Your task to perform on an android device: turn off picture-in-picture Image 0: 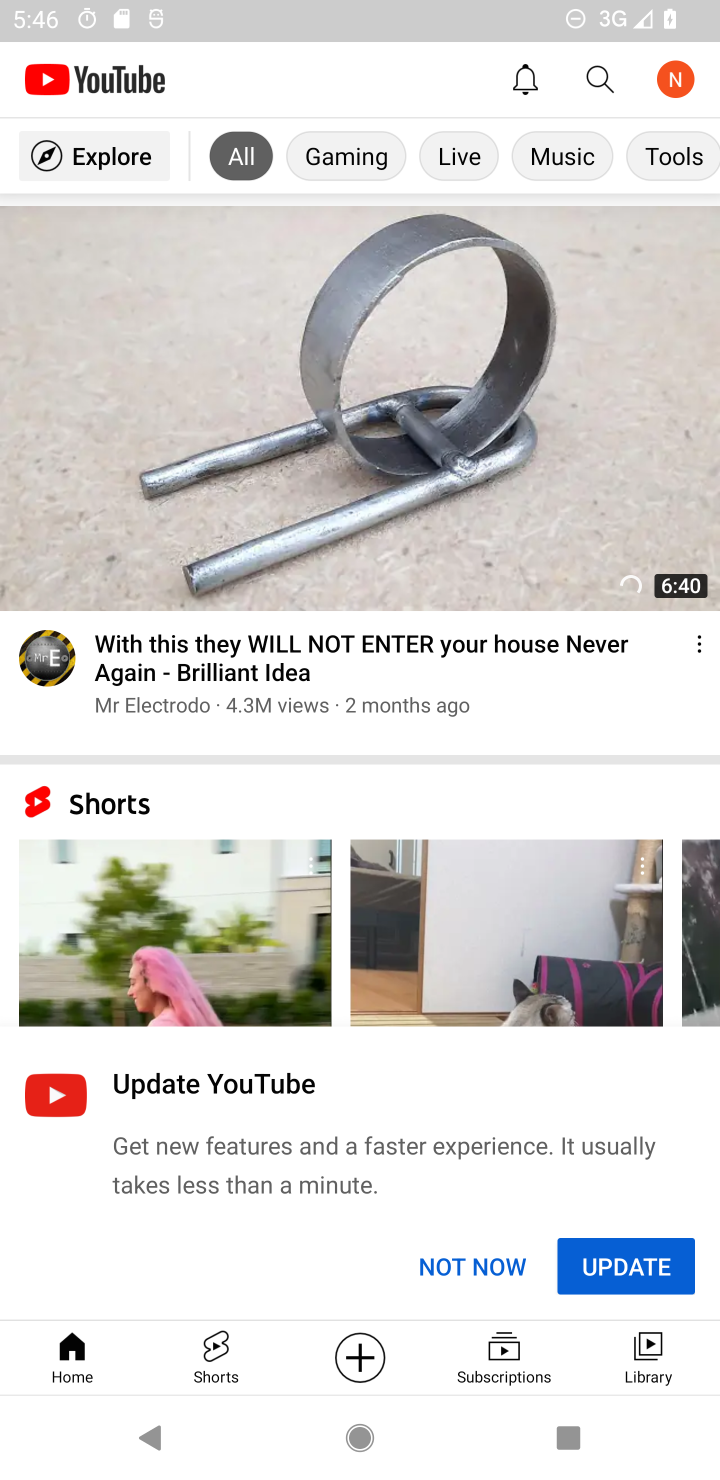
Step 0: drag from (473, 832) to (613, 153)
Your task to perform on an android device: turn off picture-in-picture Image 1: 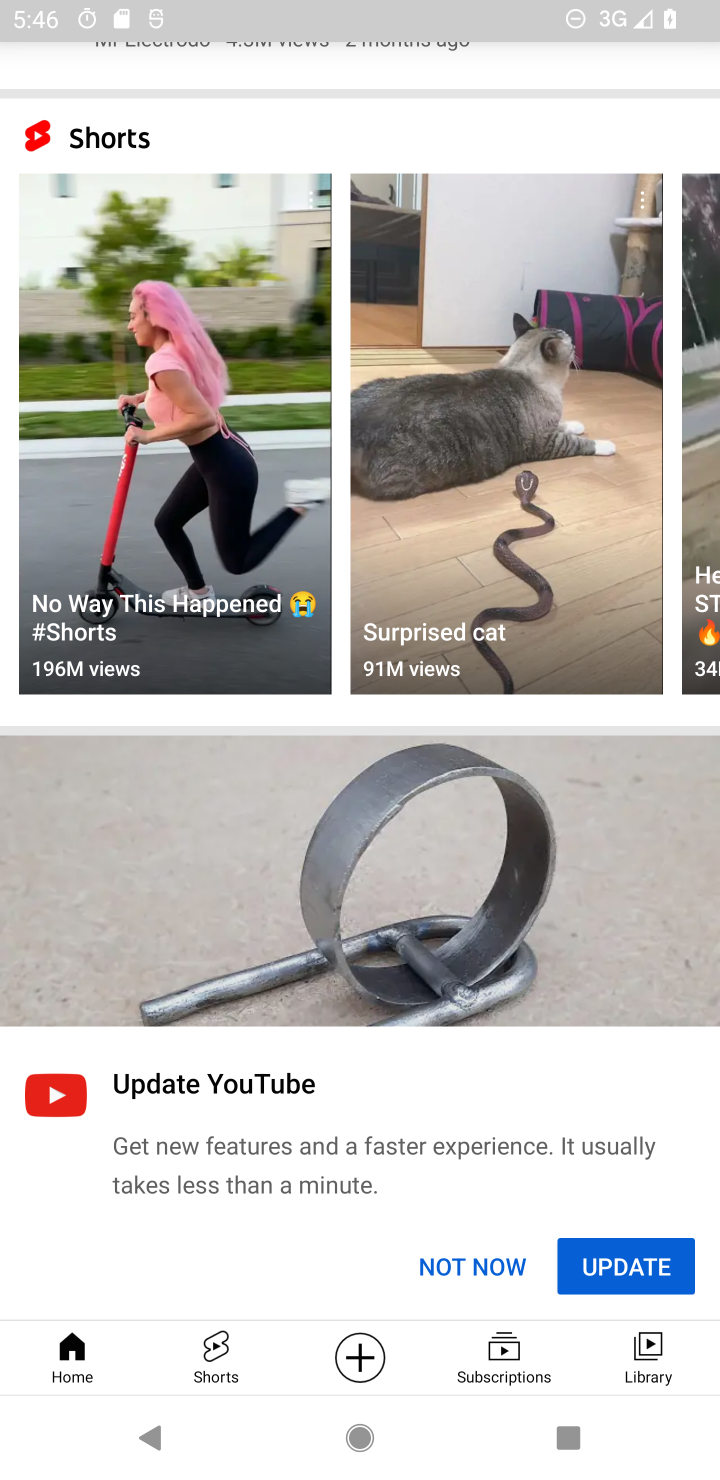
Step 1: drag from (462, 752) to (492, 397)
Your task to perform on an android device: turn off picture-in-picture Image 2: 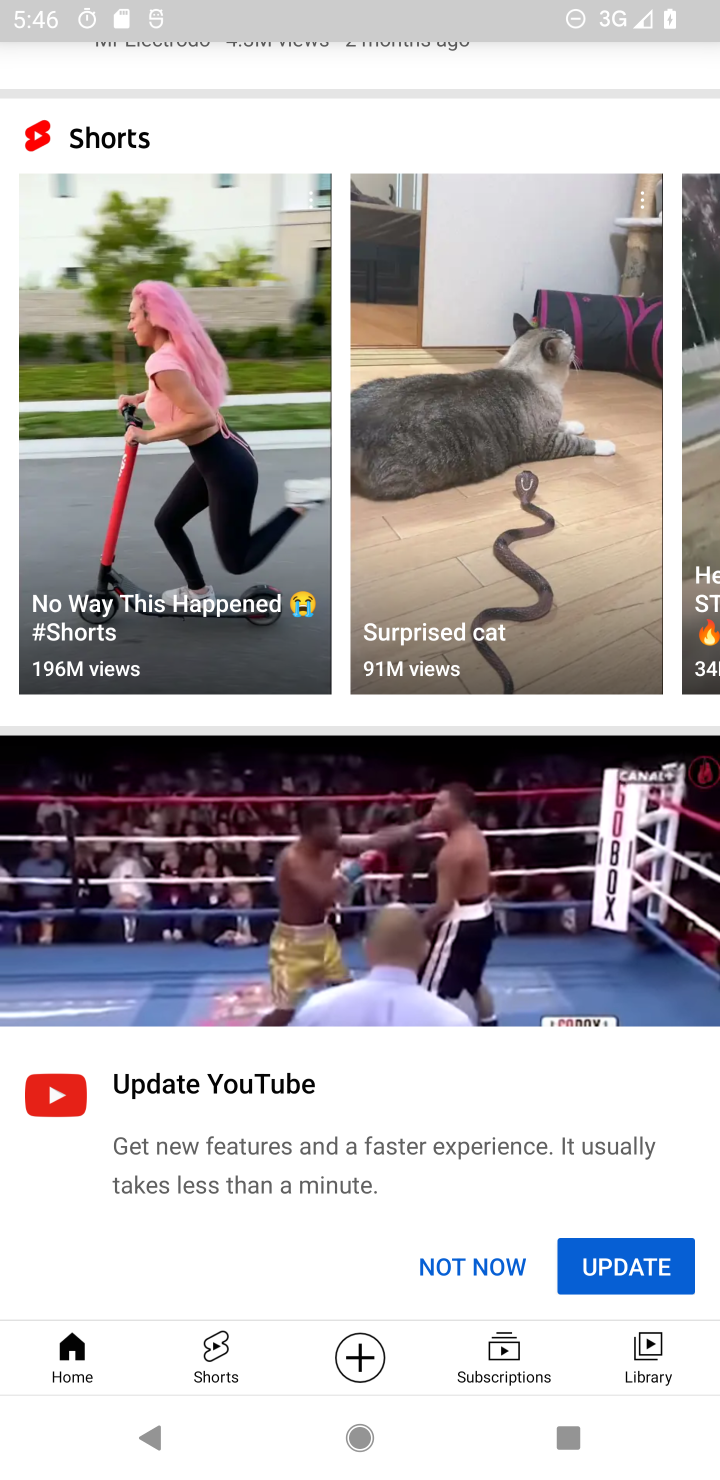
Step 2: drag from (577, 619) to (624, 180)
Your task to perform on an android device: turn off picture-in-picture Image 3: 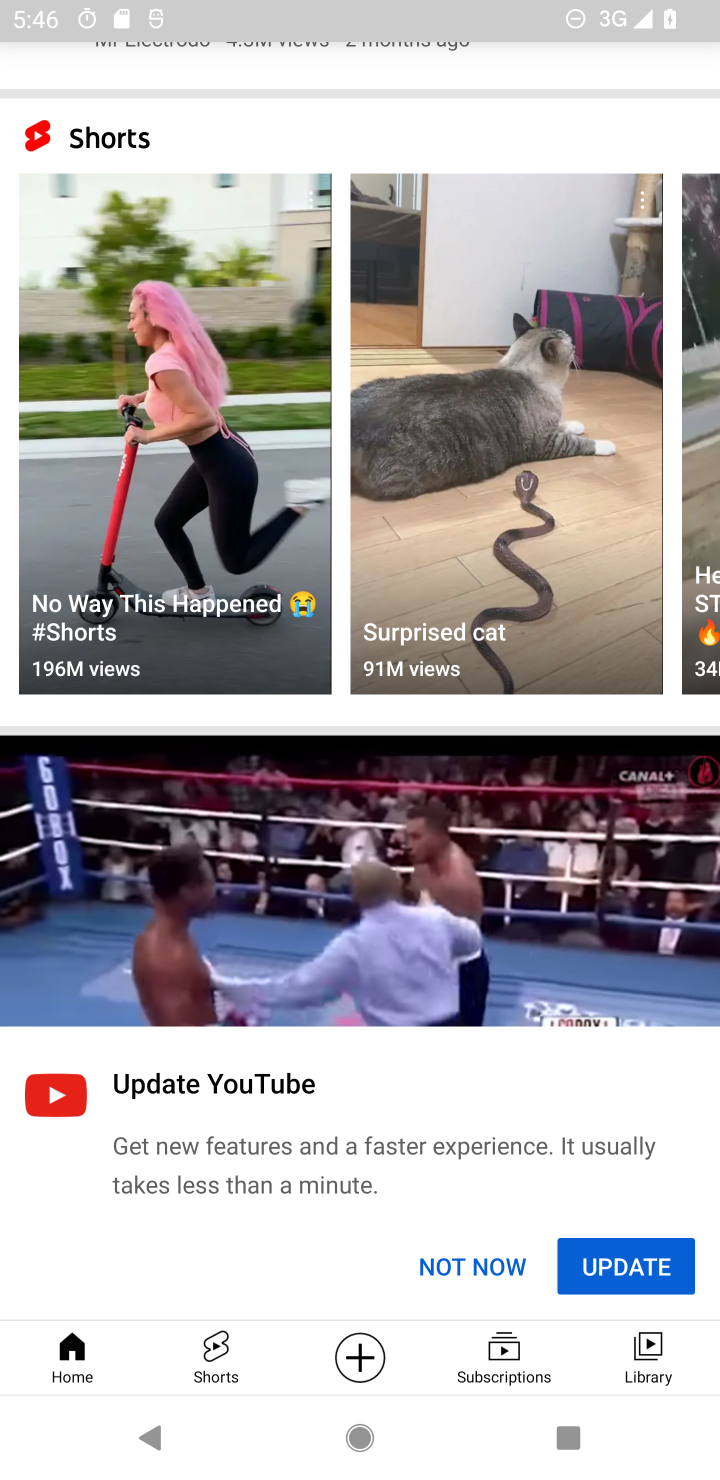
Step 3: drag from (349, 658) to (406, 314)
Your task to perform on an android device: turn off picture-in-picture Image 4: 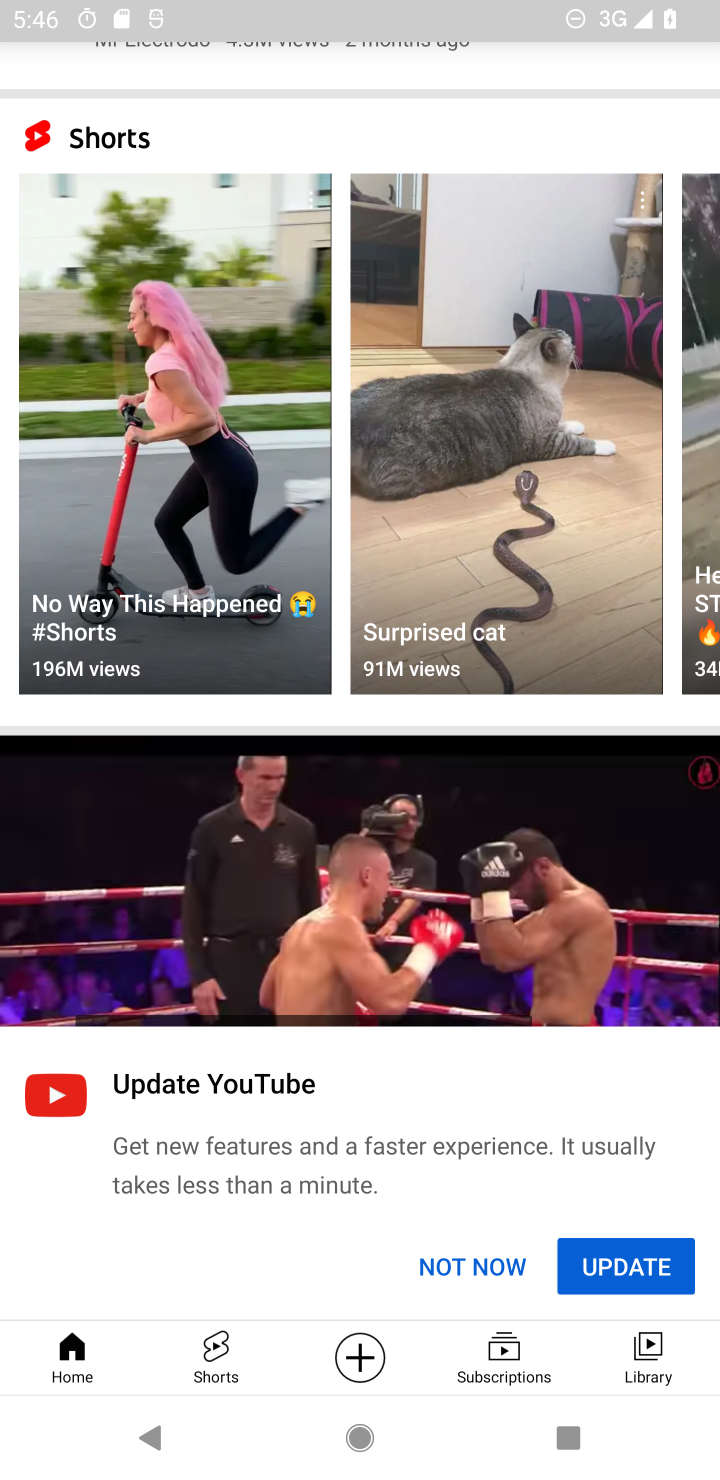
Step 4: drag from (350, 731) to (476, 179)
Your task to perform on an android device: turn off picture-in-picture Image 5: 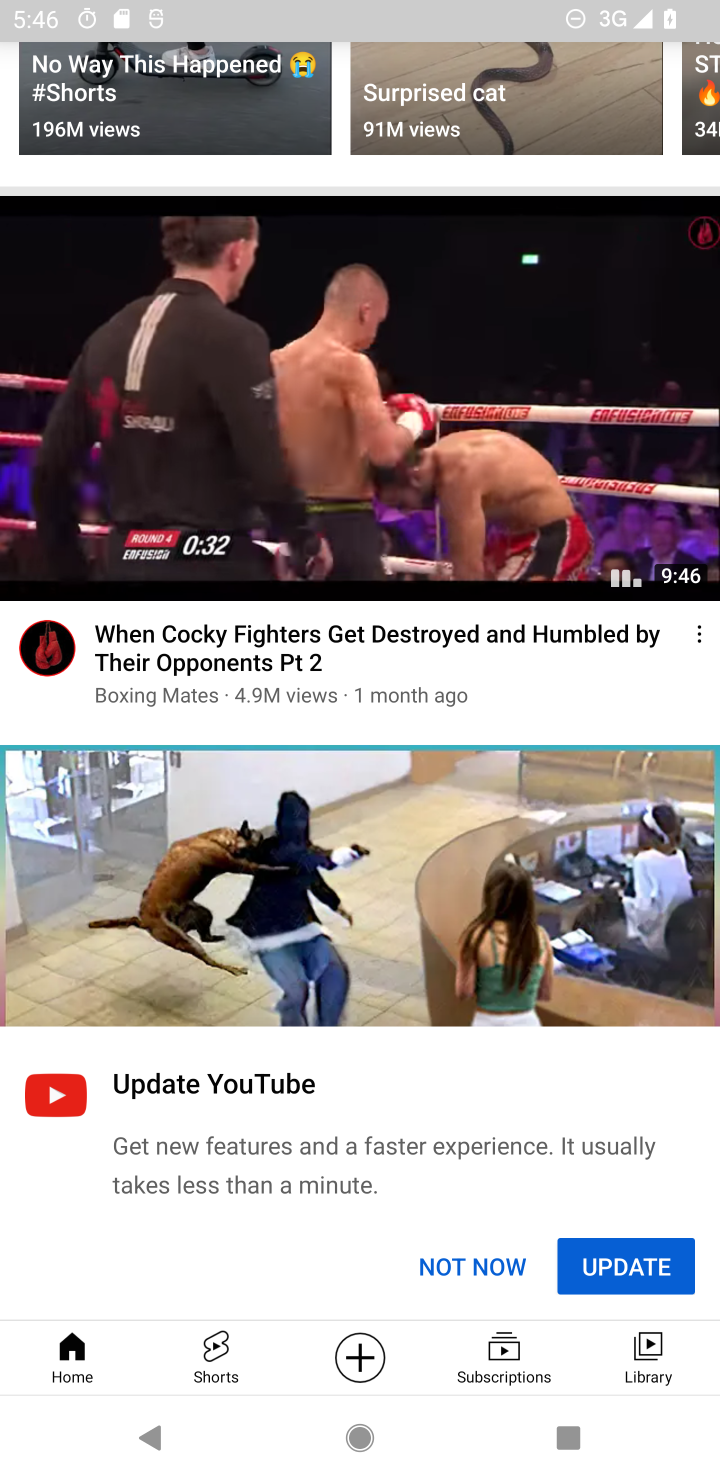
Step 5: click (465, 1258)
Your task to perform on an android device: turn off picture-in-picture Image 6: 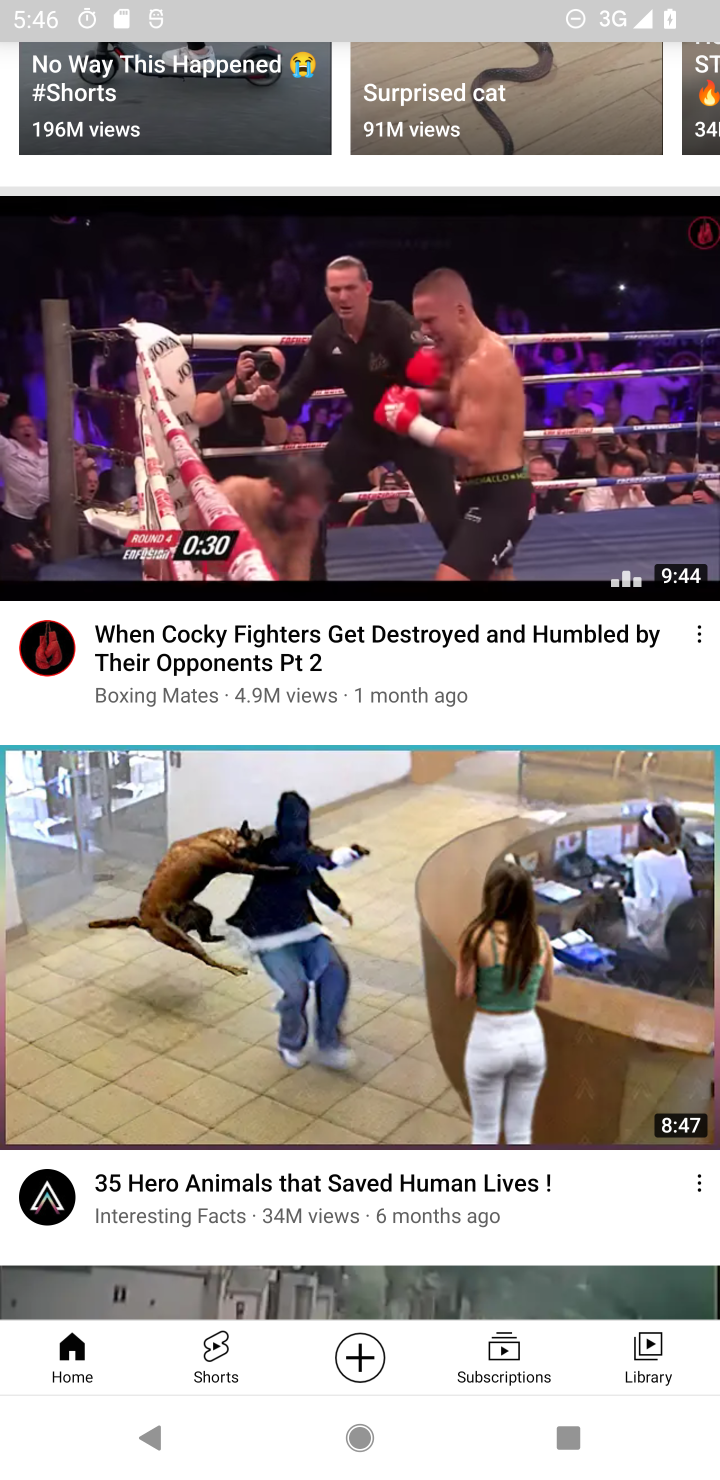
Step 6: drag from (492, 717) to (598, 1454)
Your task to perform on an android device: turn off picture-in-picture Image 7: 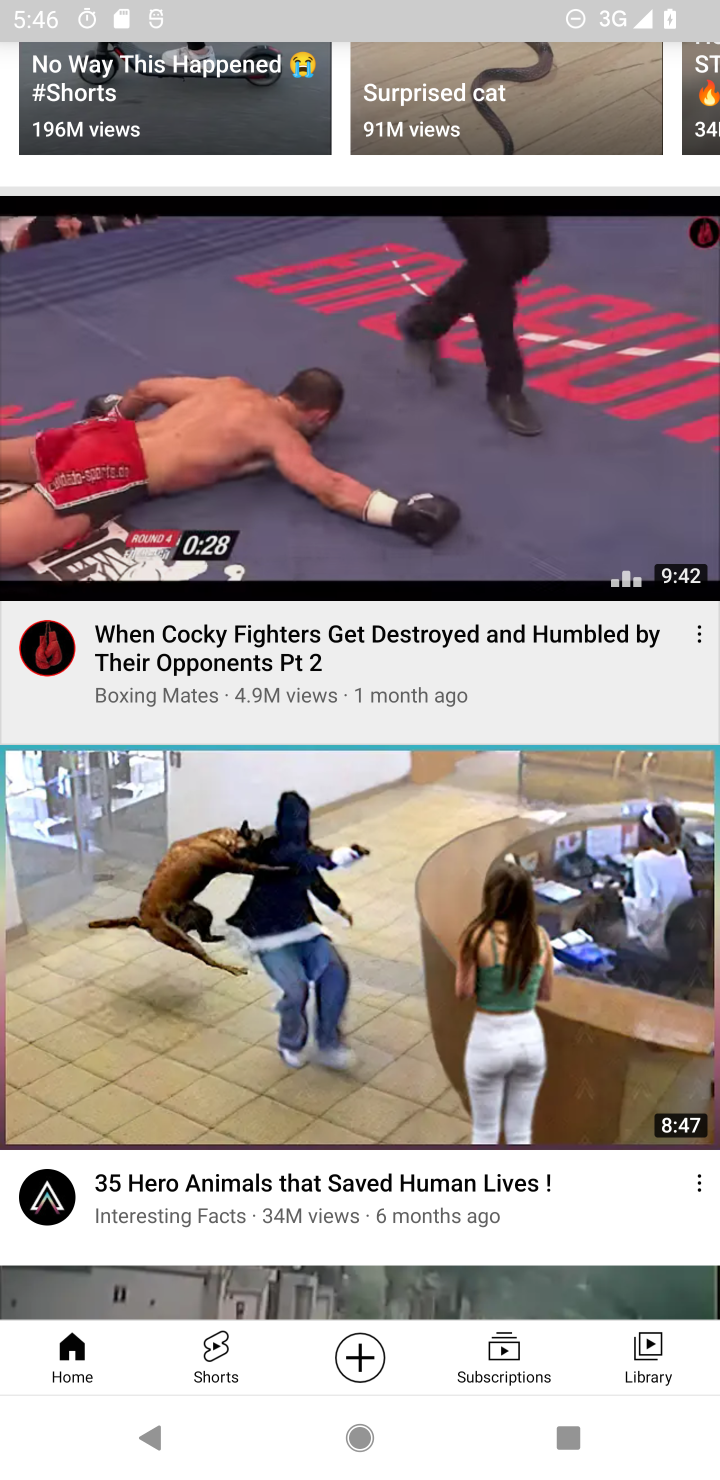
Step 7: press home button
Your task to perform on an android device: turn off picture-in-picture Image 8: 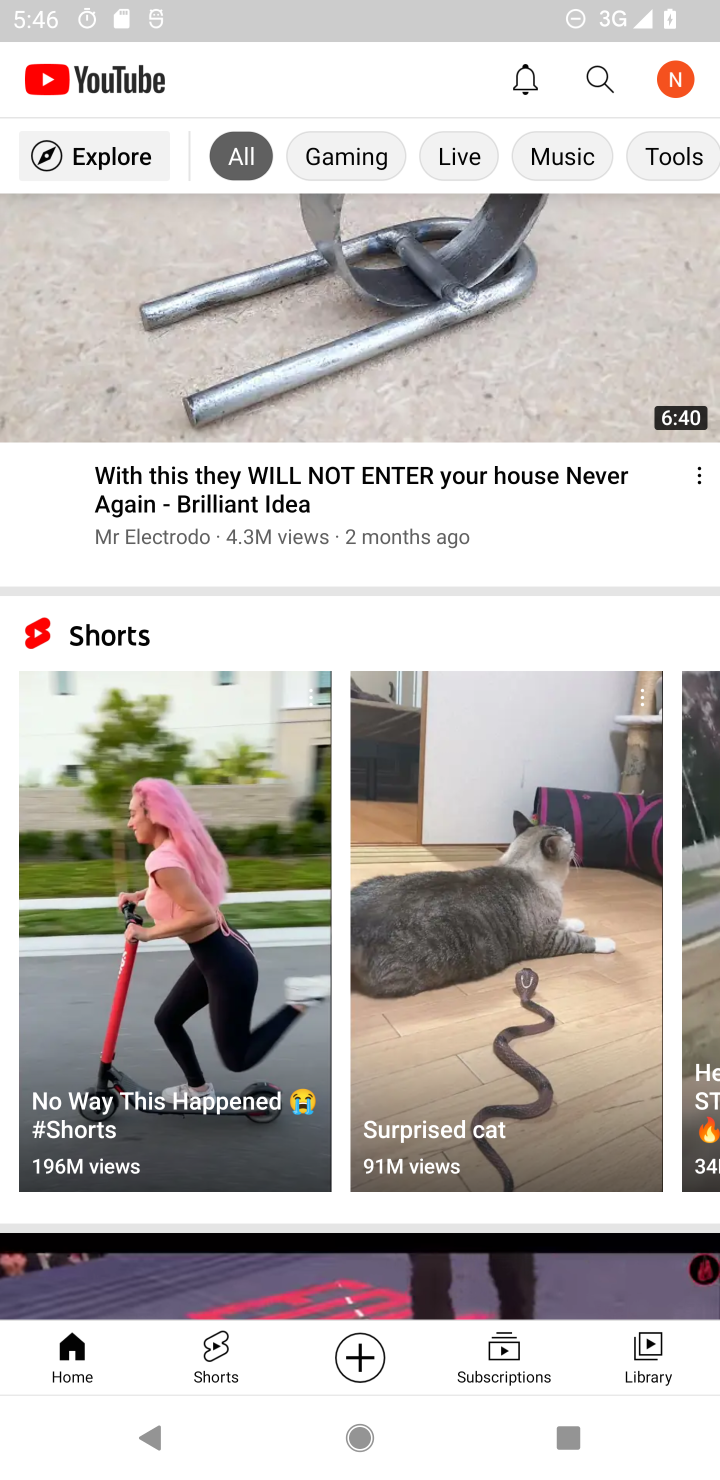
Step 8: drag from (658, 854) to (554, 281)
Your task to perform on an android device: turn off picture-in-picture Image 9: 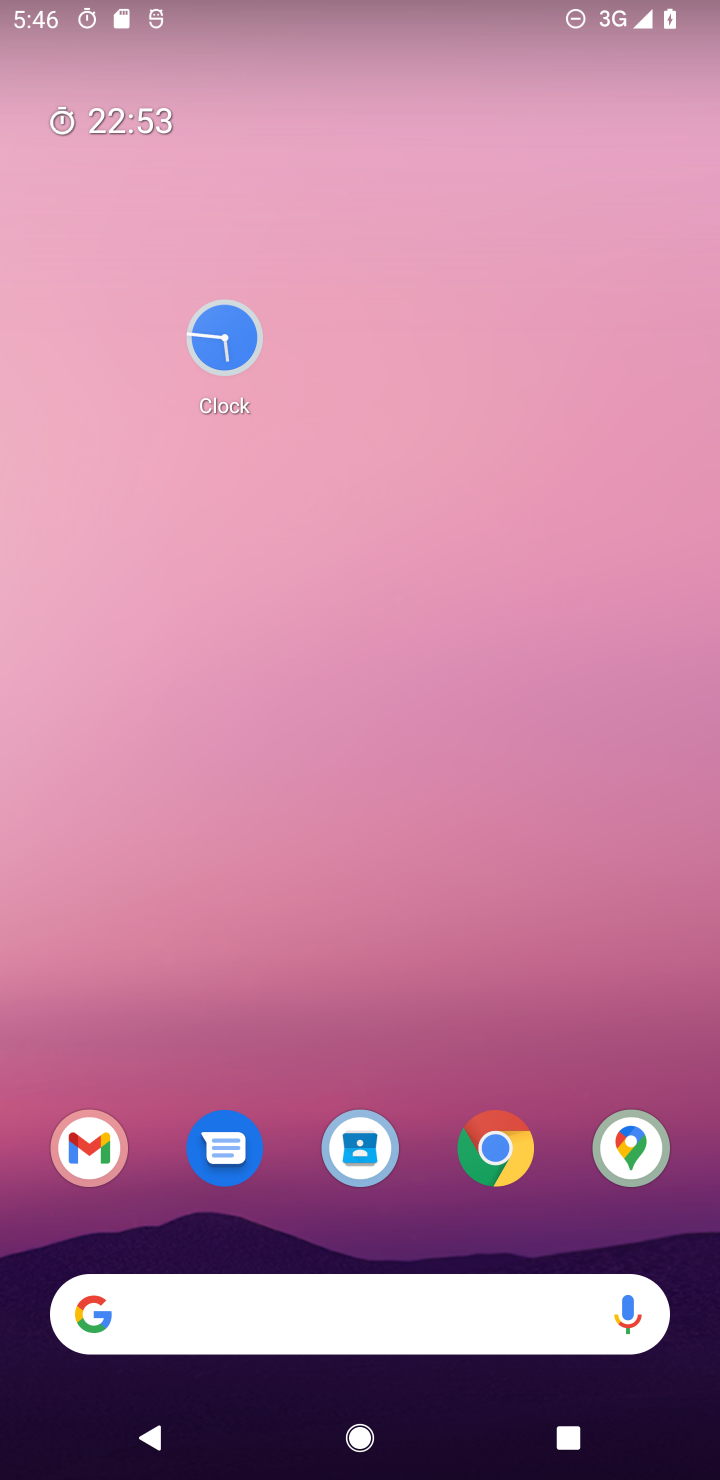
Step 9: drag from (369, 1236) to (663, 325)
Your task to perform on an android device: turn off picture-in-picture Image 10: 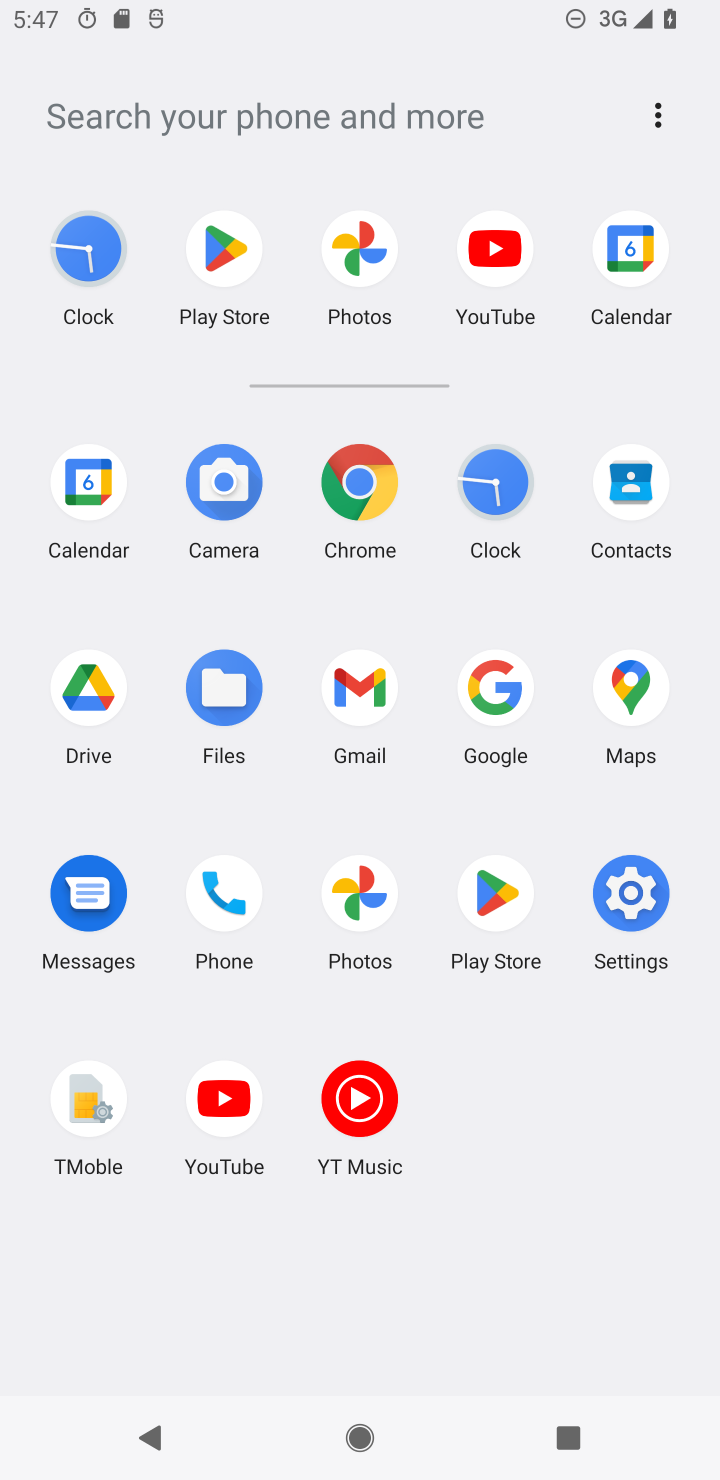
Step 10: click (632, 884)
Your task to perform on an android device: turn off picture-in-picture Image 11: 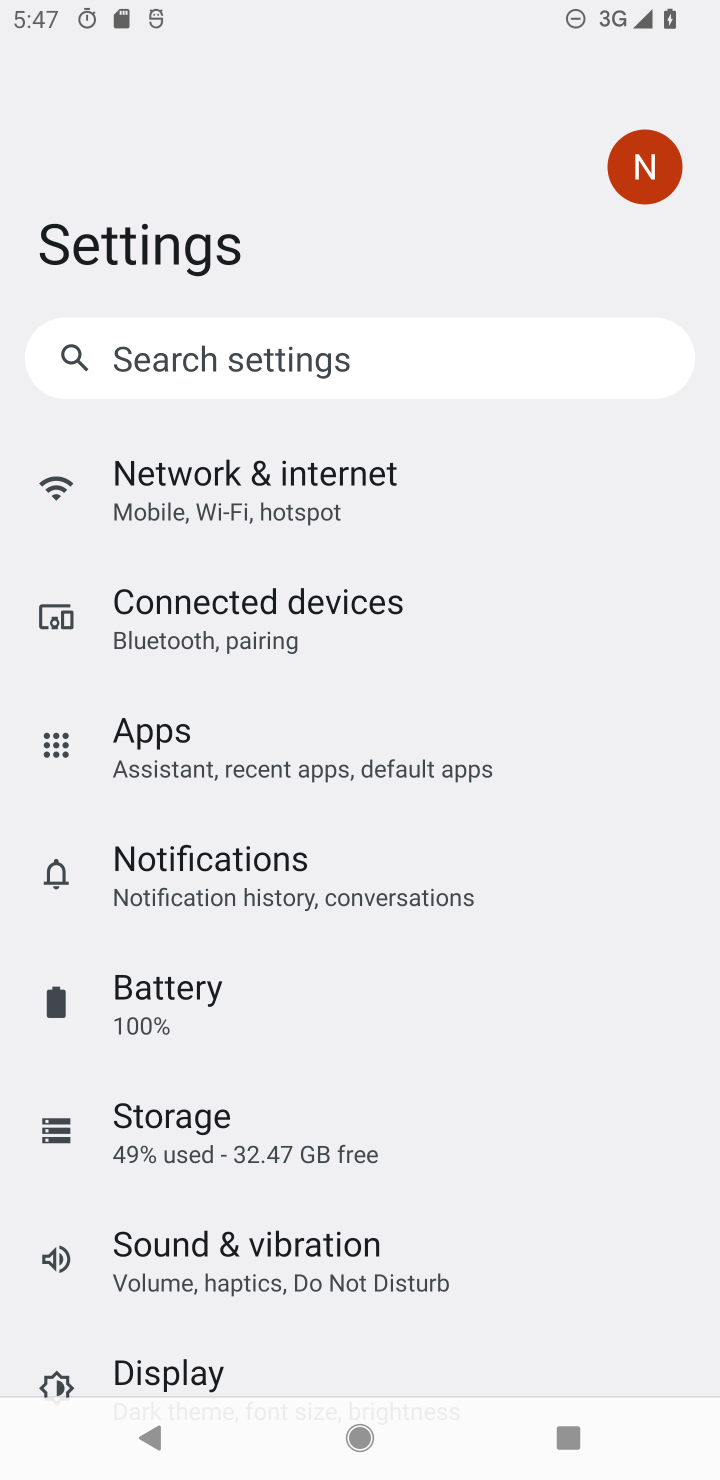
Step 11: drag from (393, 1009) to (472, 429)
Your task to perform on an android device: turn off picture-in-picture Image 12: 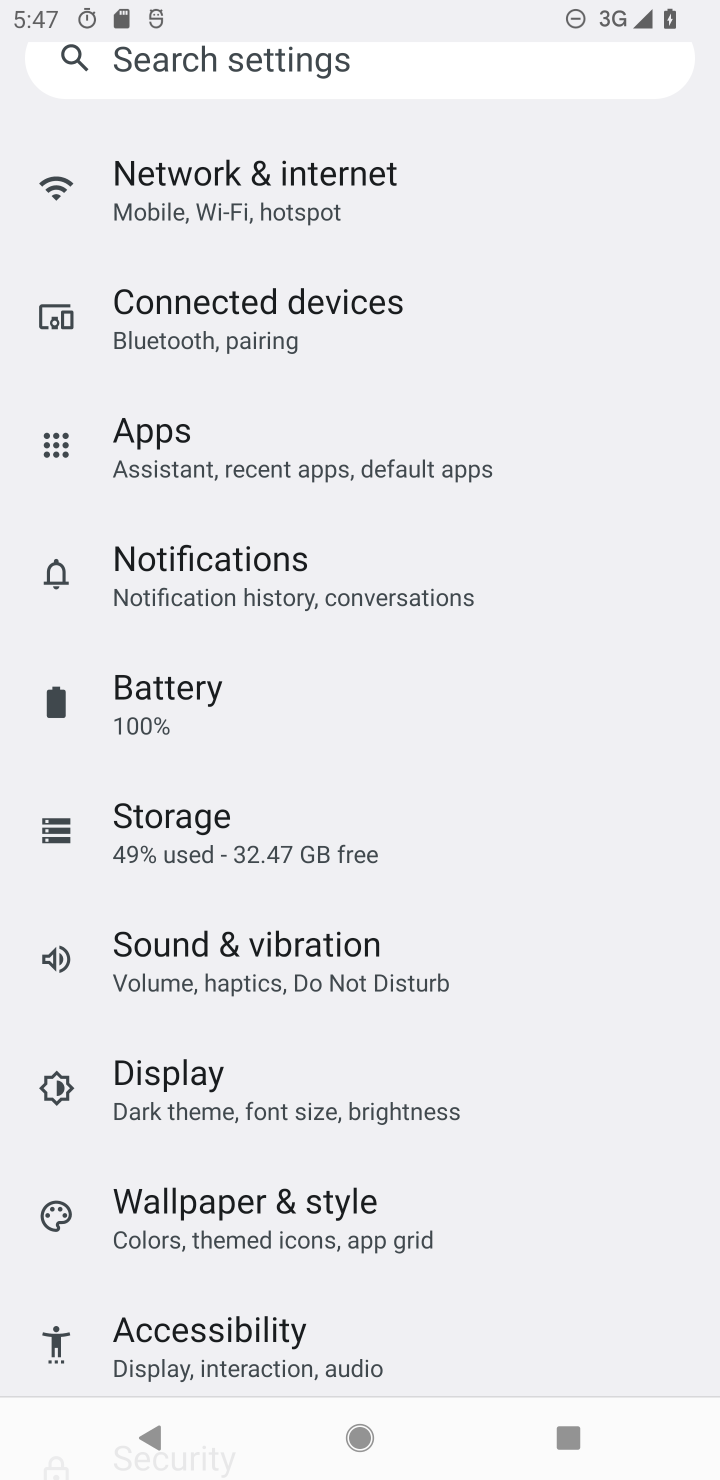
Step 12: drag from (294, 1147) to (408, 246)
Your task to perform on an android device: turn off picture-in-picture Image 13: 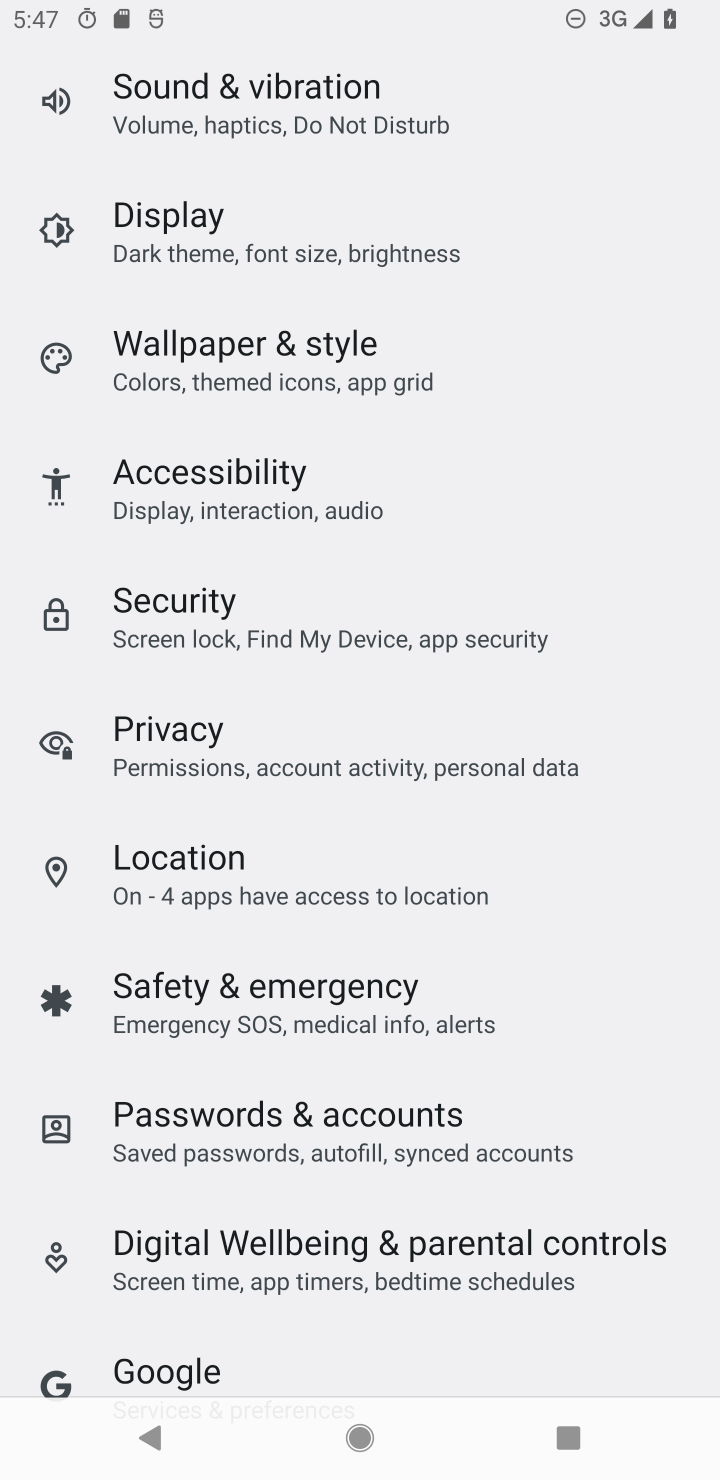
Step 13: click (476, 600)
Your task to perform on an android device: turn off picture-in-picture Image 14: 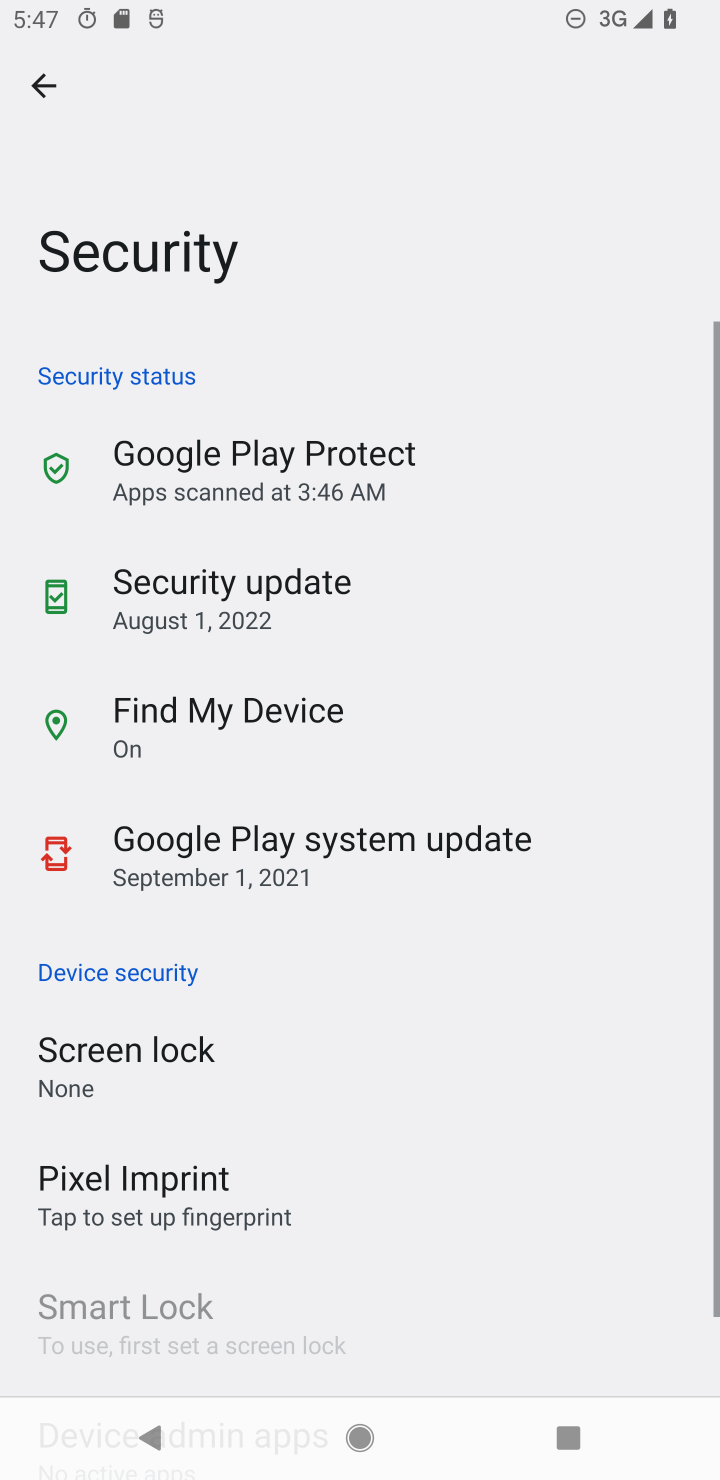
Step 14: drag from (373, 347) to (381, 1276)
Your task to perform on an android device: turn off picture-in-picture Image 15: 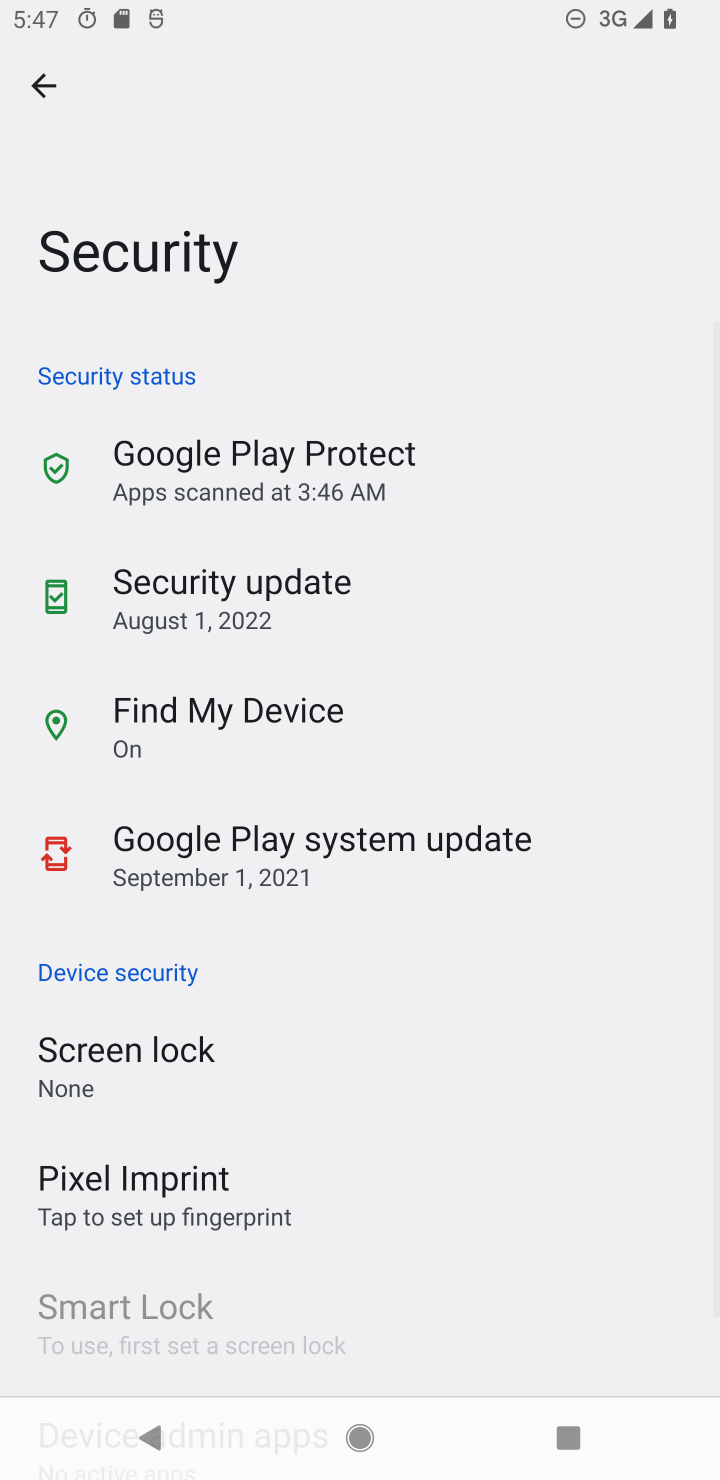
Step 15: press back button
Your task to perform on an android device: turn off picture-in-picture Image 16: 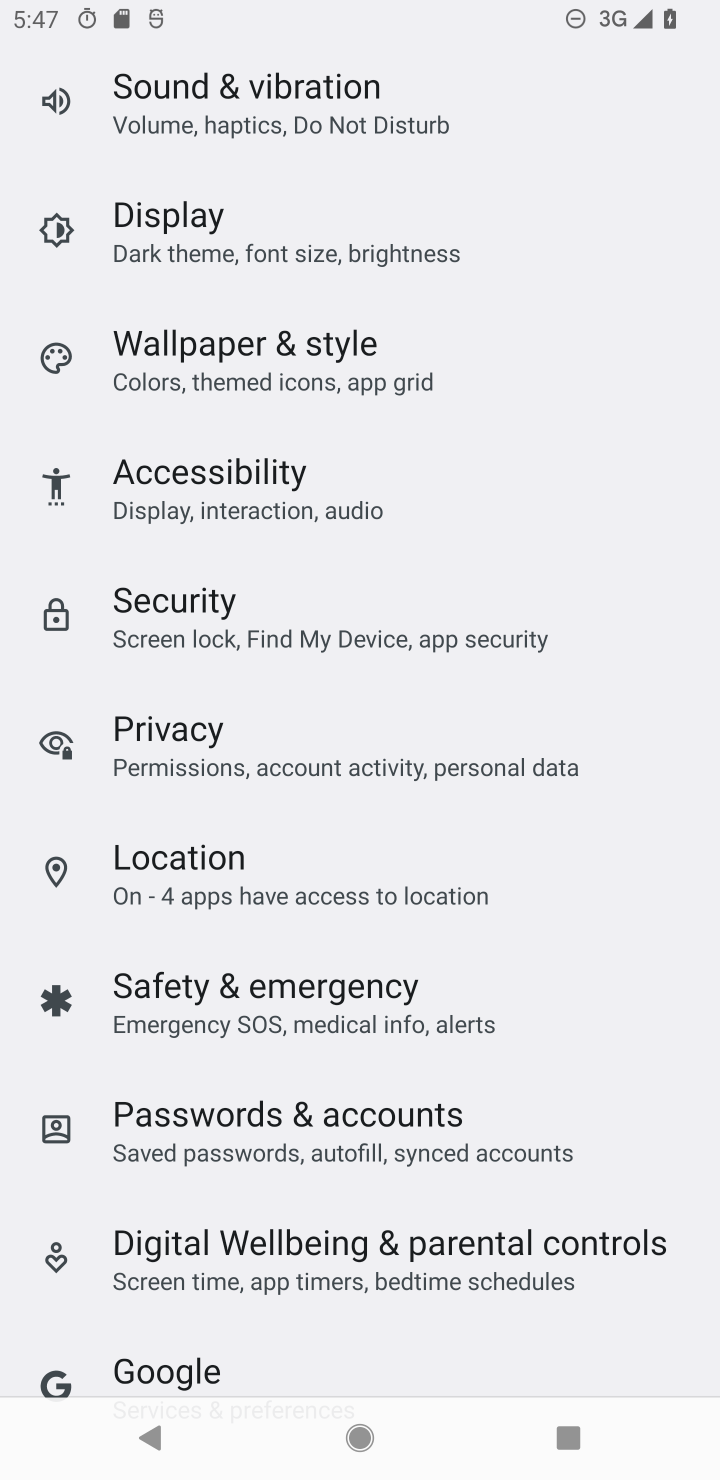
Step 16: drag from (275, 338) to (385, 1205)
Your task to perform on an android device: turn off picture-in-picture Image 17: 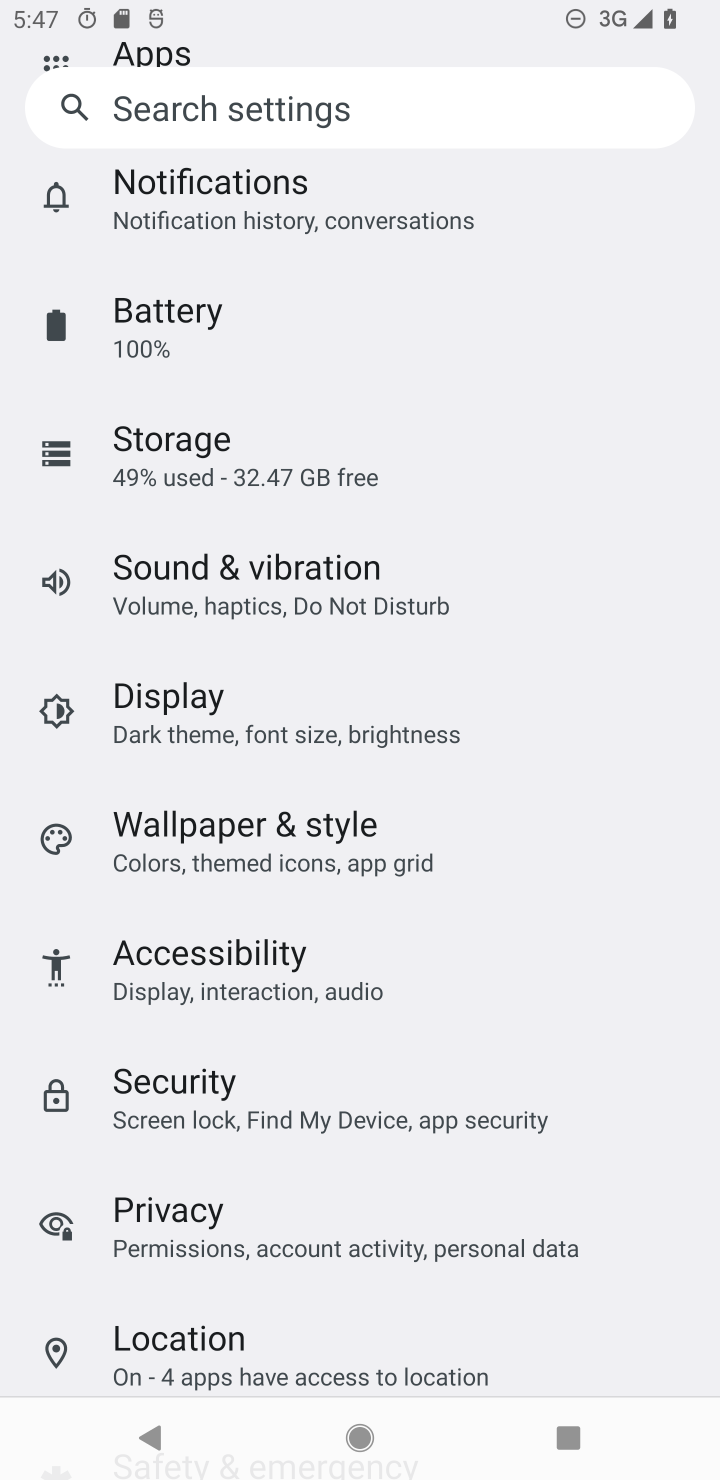
Step 17: drag from (253, 493) to (565, 1430)
Your task to perform on an android device: turn off picture-in-picture Image 18: 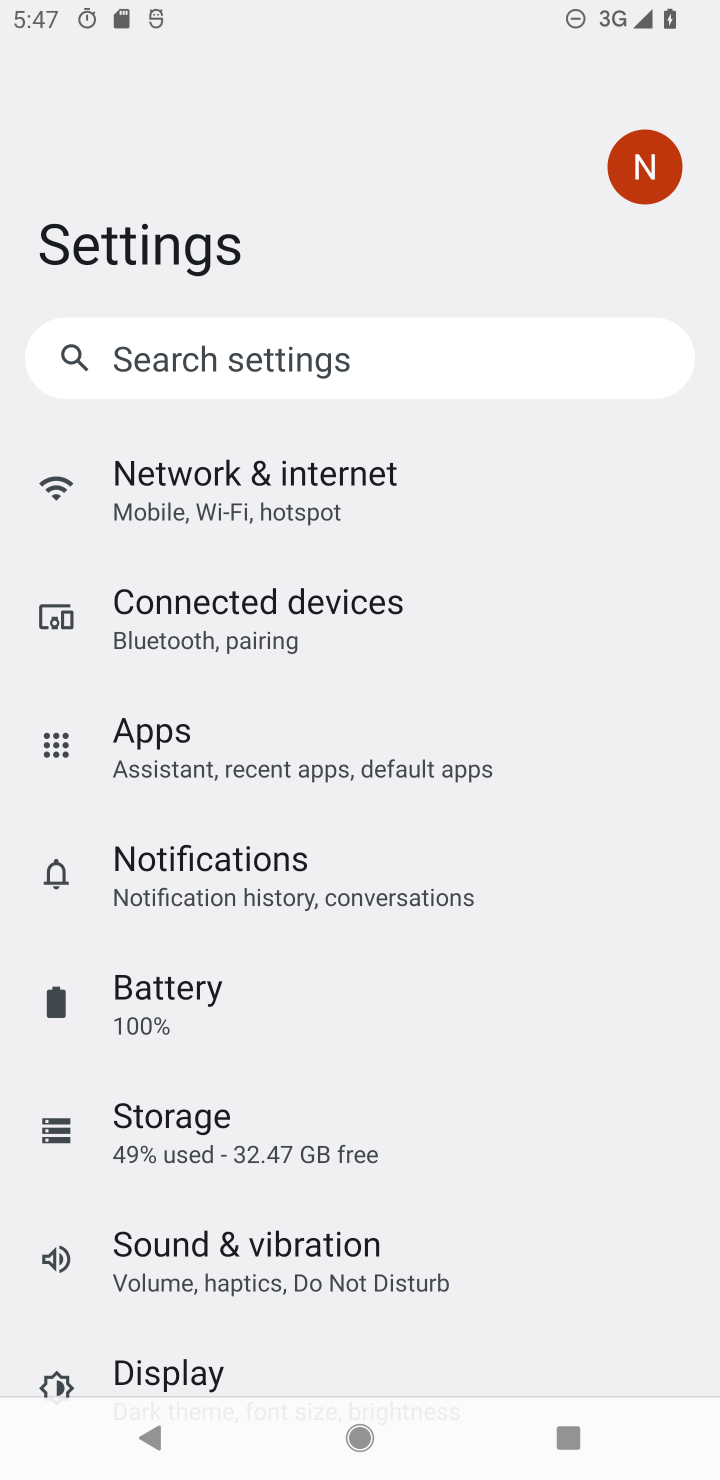
Step 18: drag from (336, 660) to (396, 1311)
Your task to perform on an android device: turn off picture-in-picture Image 19: 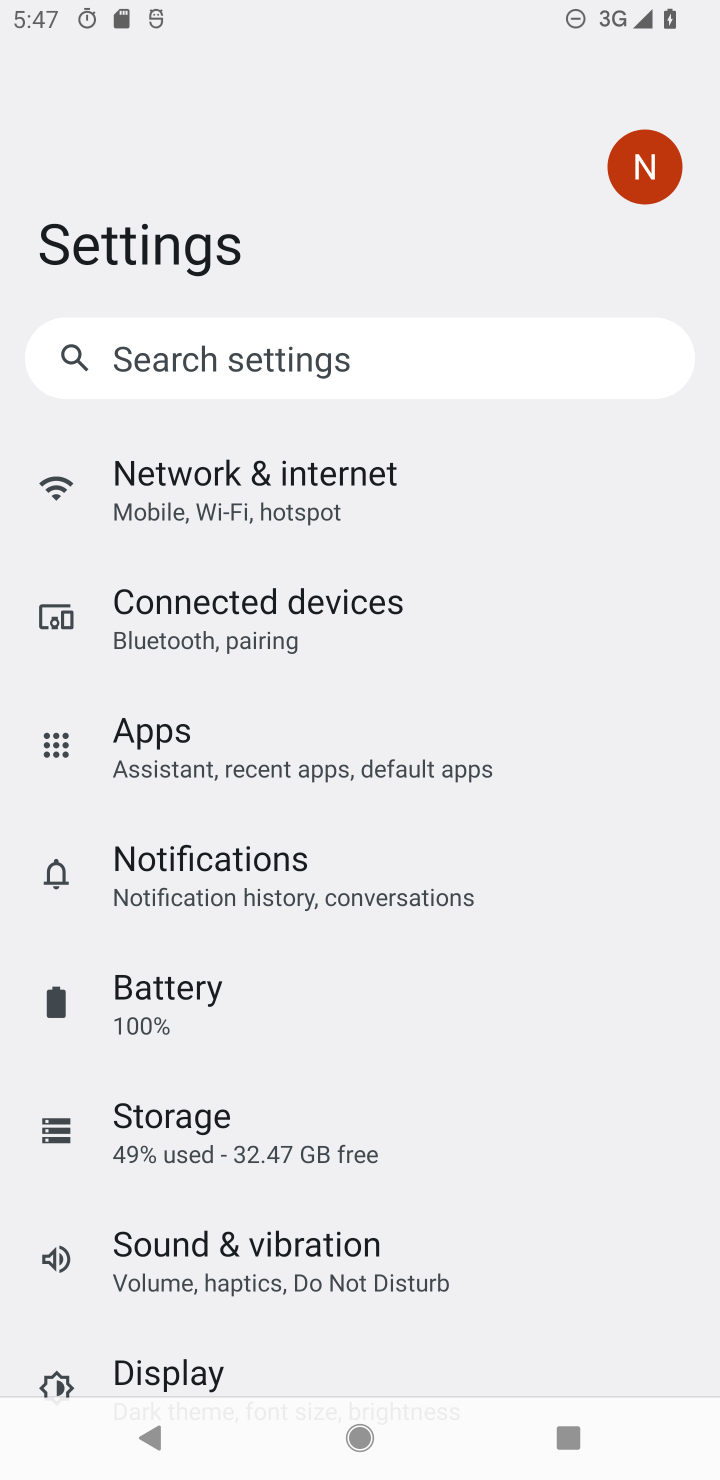
Step 19: drag from (287, 1265) to (339, 586)
Your task to perform on an android device: turn off picture-in-picture Image 20: 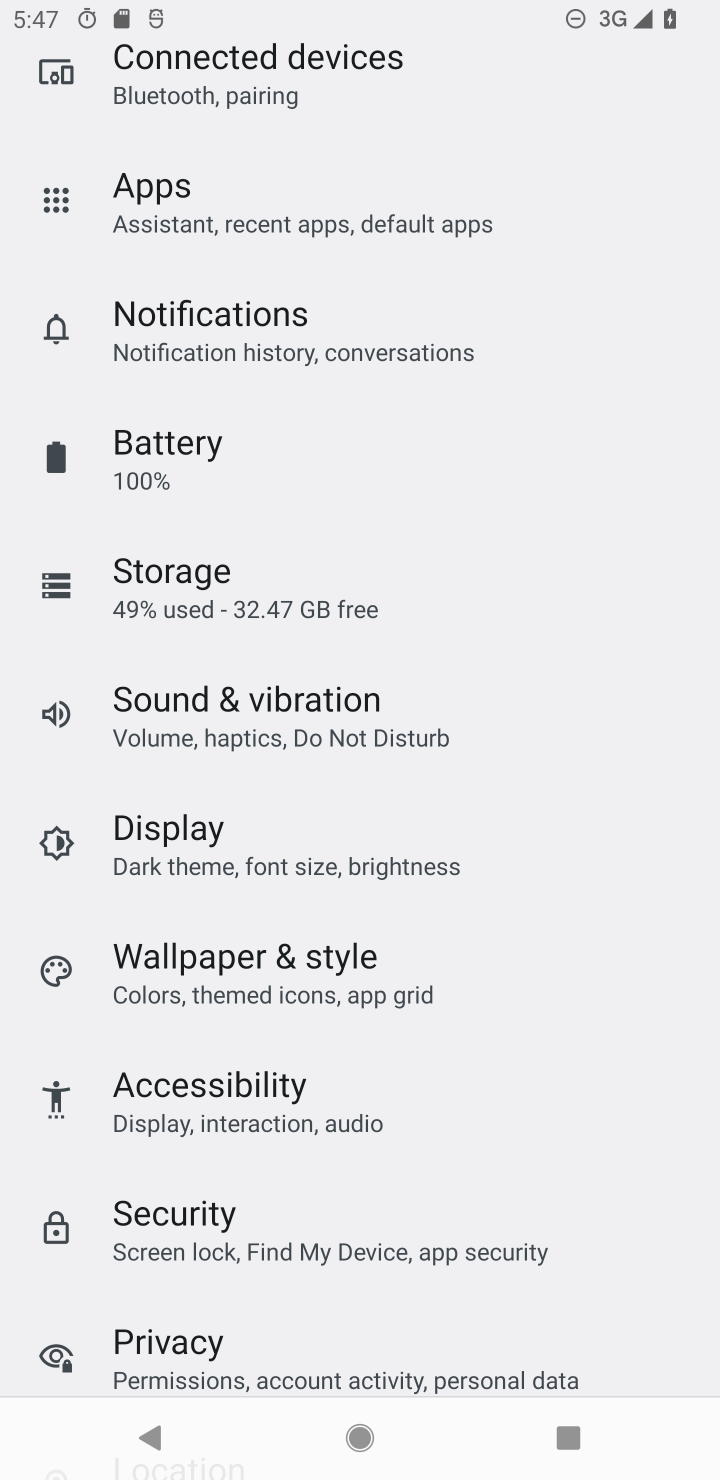
Step 20: drag from (340, 1289) to (574, 401)
Your task to perform on an android device: turn off picture-in-picture Image 21: 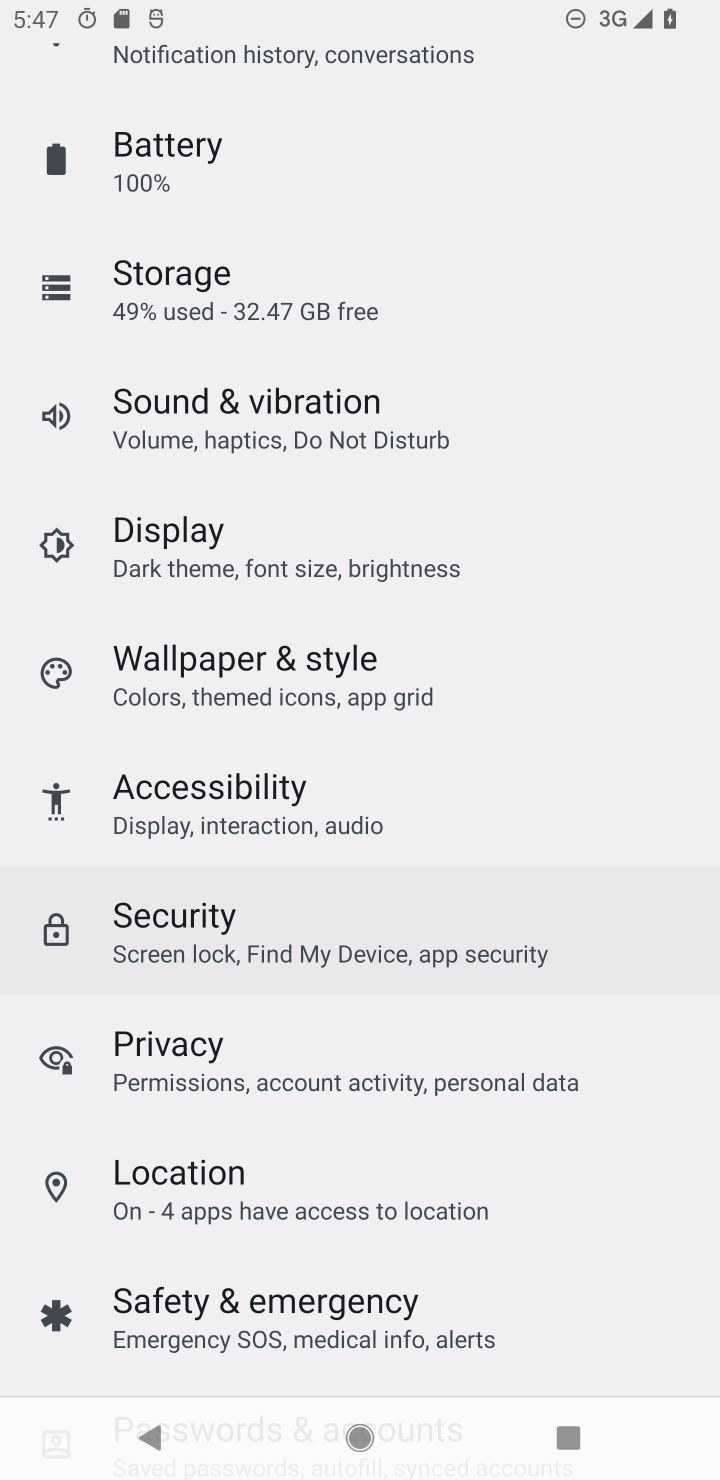
Step 21: drag from (527, 426) to (534, 1360)
Your task to perform on an android device: turn off picture-in-picture Image 22: 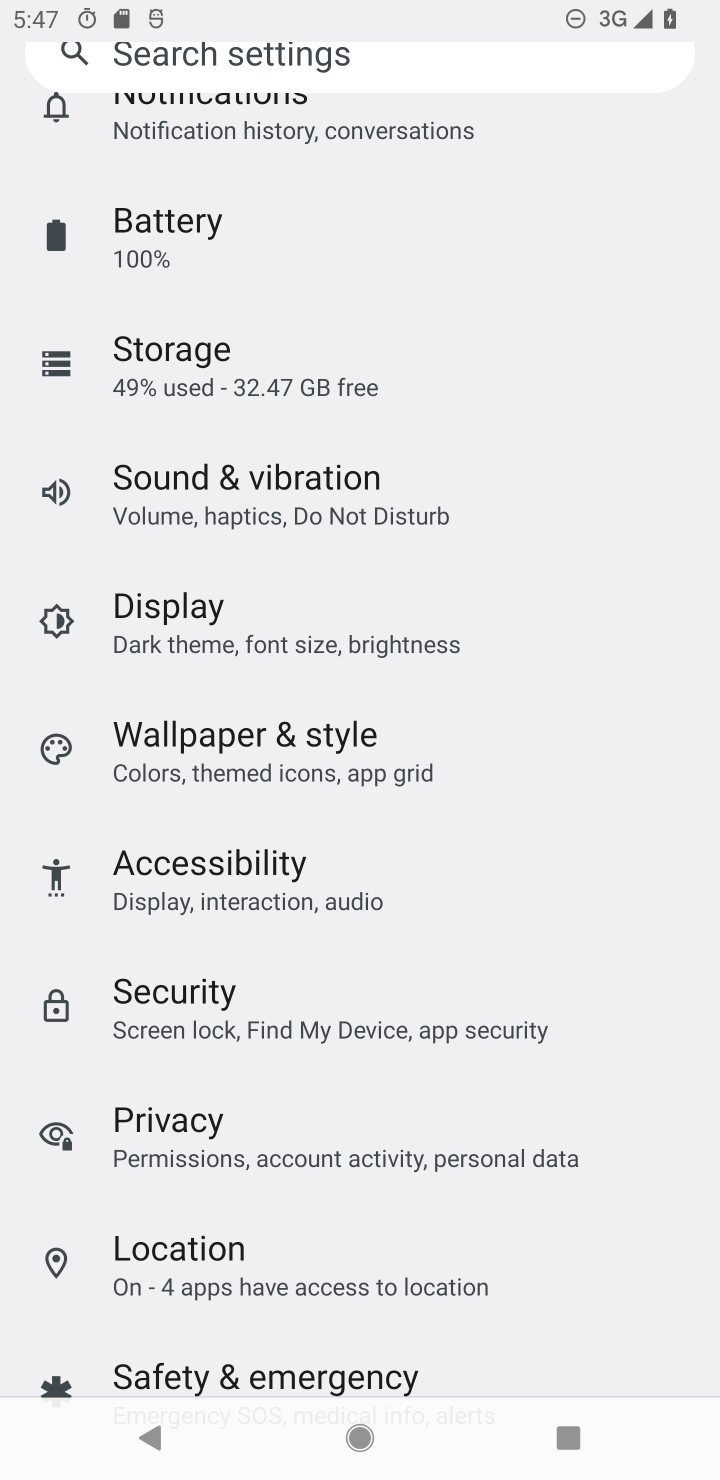
Step 22: drag from (410, 500) to (390, 1468)
Your task to perform on an android device: turn off picture-in-picture Image 23: 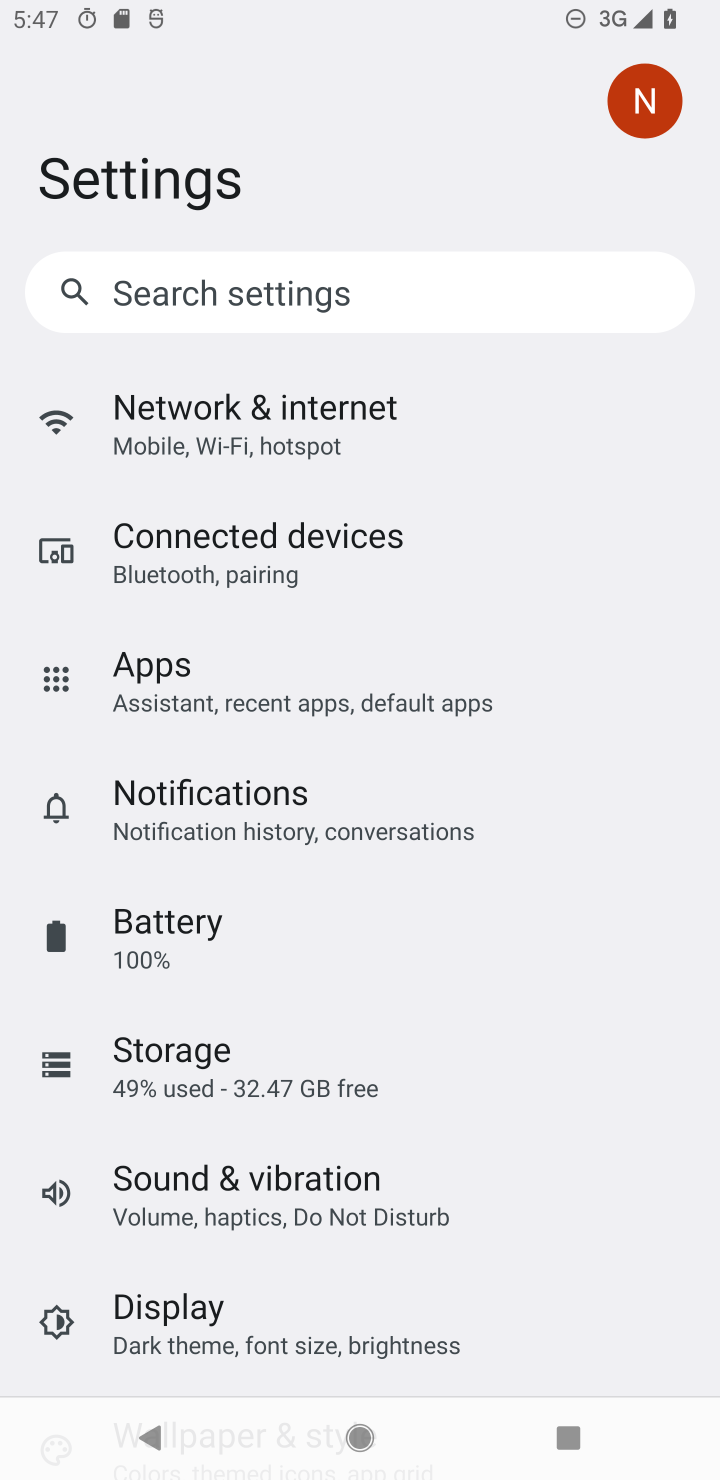
Step 23: drag from (337, 711) to (355, 1475)
Your task to perform on an android device: turn off picture-in-picture Image 24: 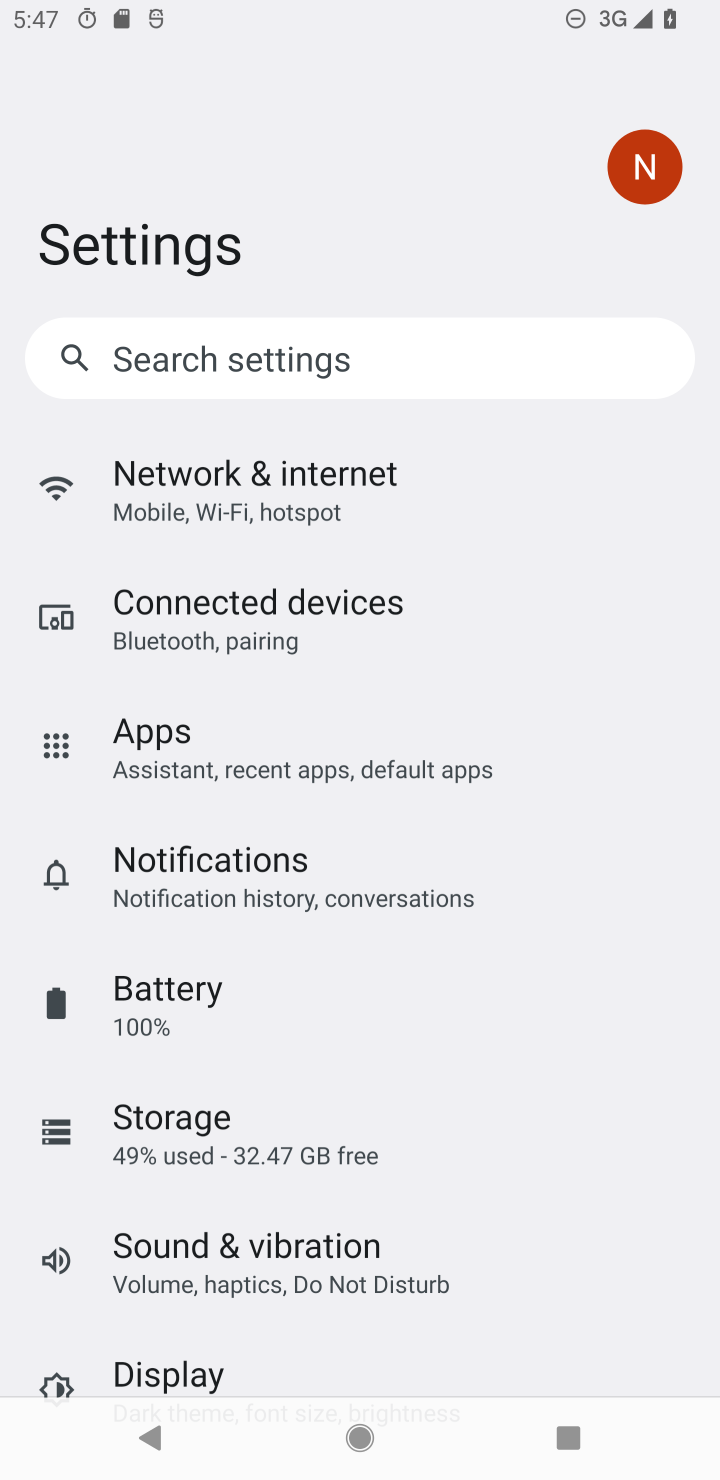
Step 24: drag from (426, 1127) to (512, 675)
Your task to perform on an android device: turn off picture-in-picture Image 25: 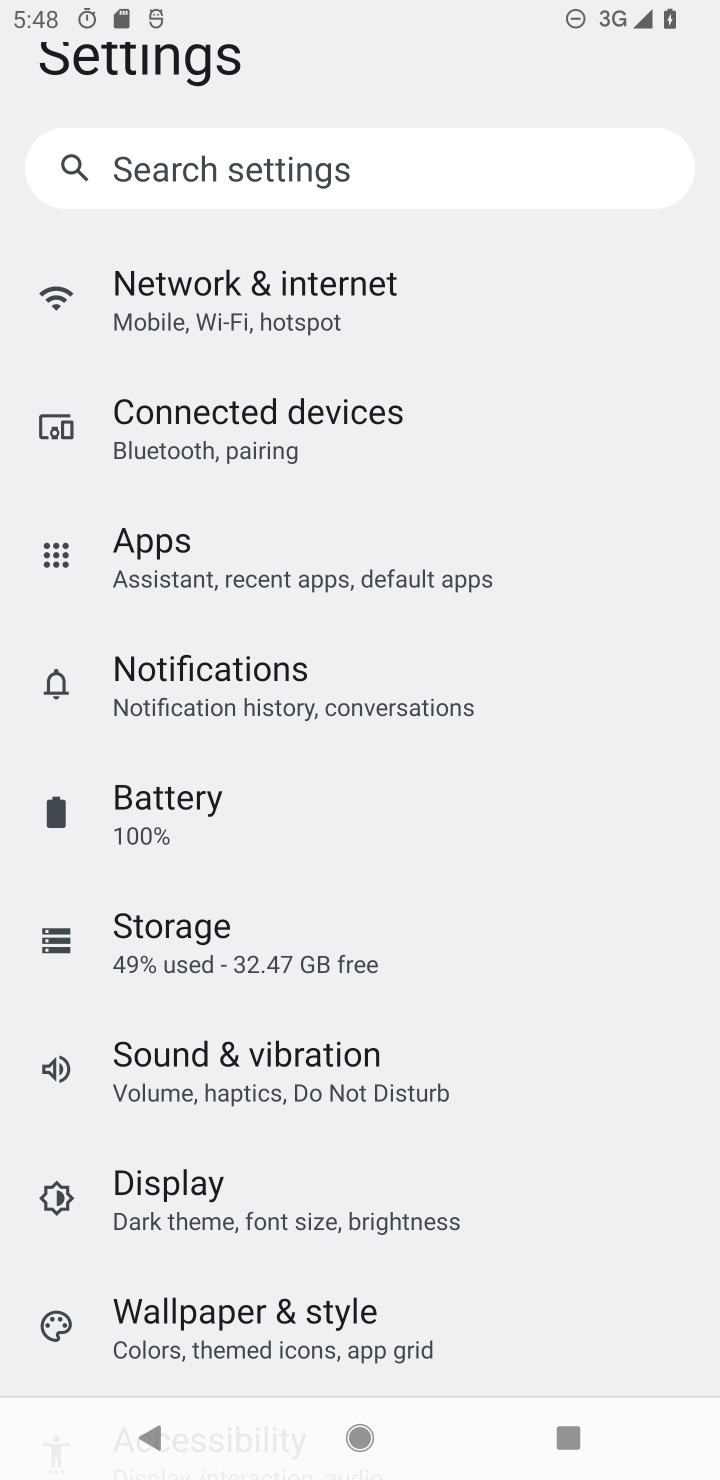
Step 25: drag from (350, 1125) to (383, 352)
Your task to perform on an android device: turn off picture-in-picture Image 26: 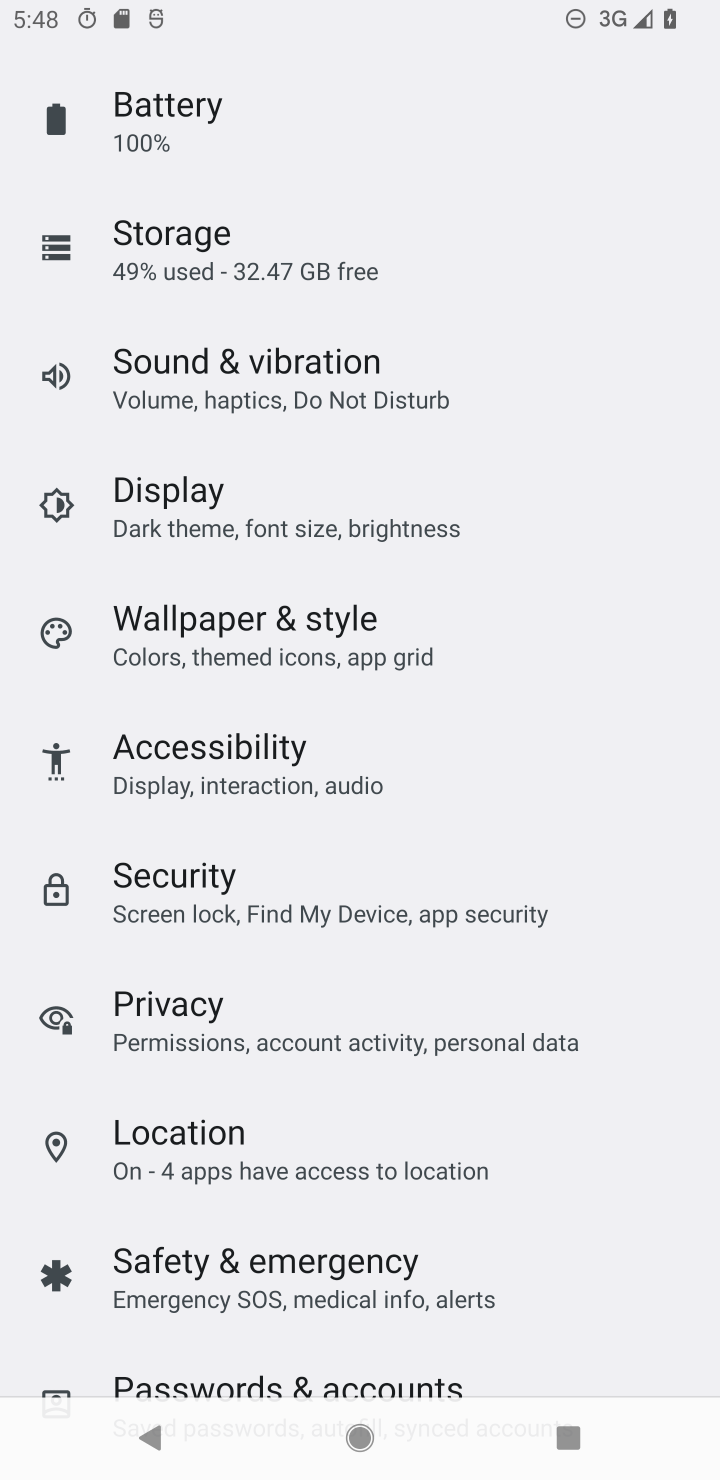
Step 26: drag from (347, 483) to (521, 1463)
Your task to perform on an android device: turn off picture-in-picture Image 27: 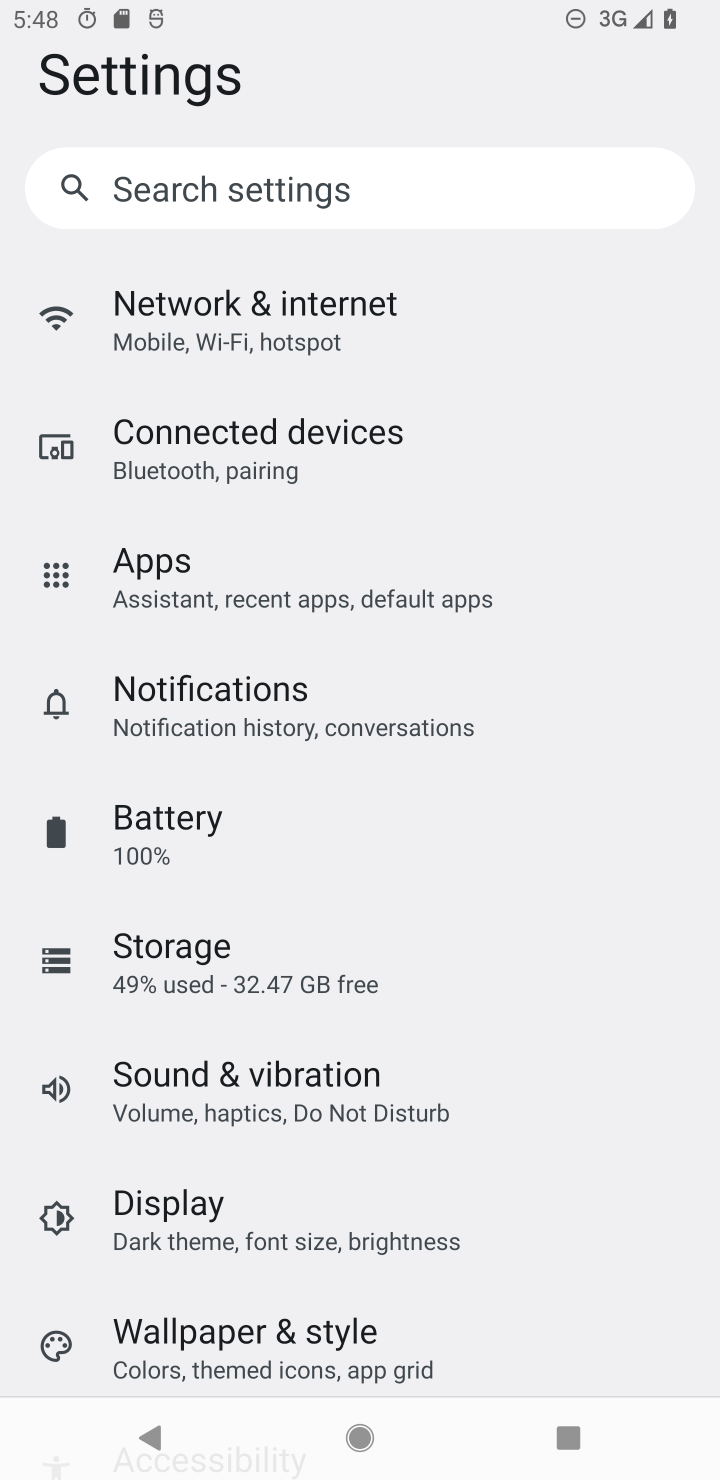
Step 27: drag from (354, 377) to (518, 1316)
Your task to perform on an android device: turn off picture-in-picture Image 28: 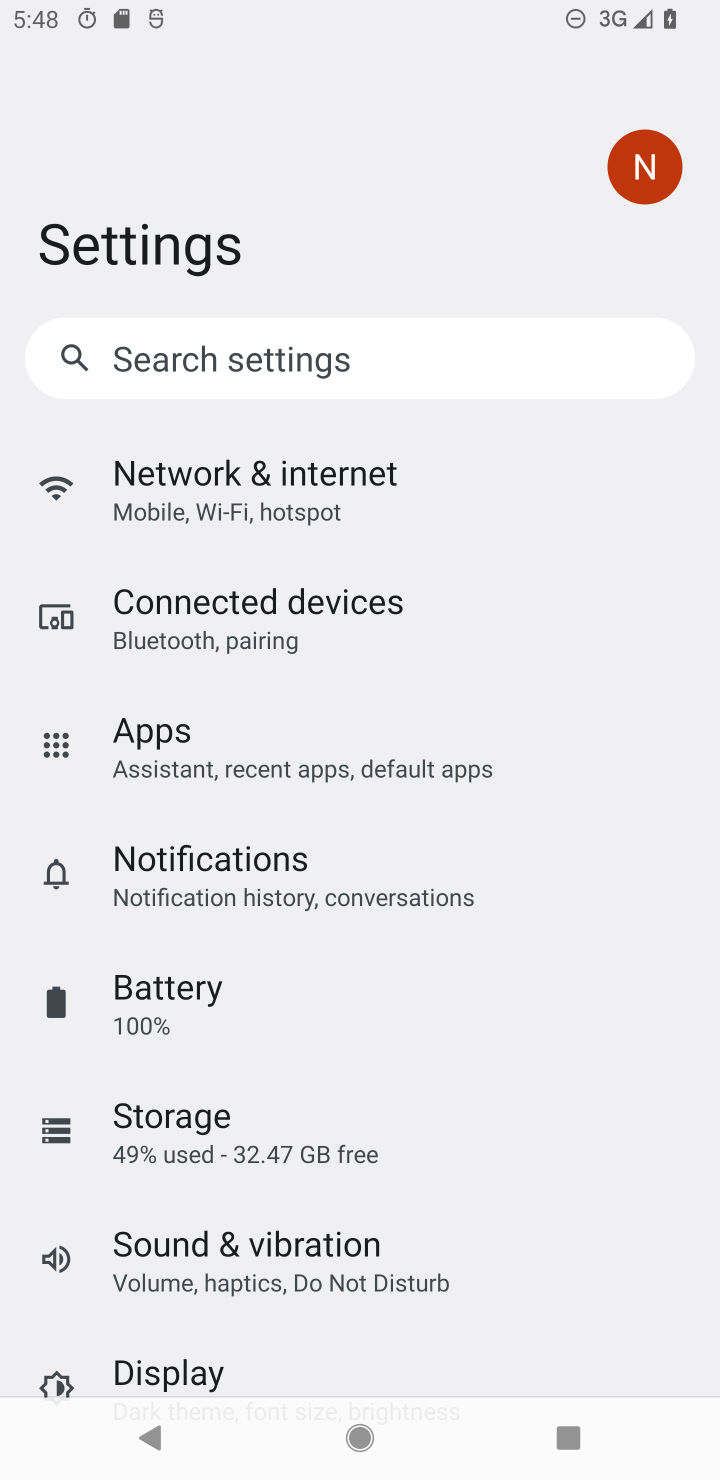
Step 28: drag from (352, 1079) to (464, 610)
Your task to perform on an android device: turn off picture-in-picture Image 29: 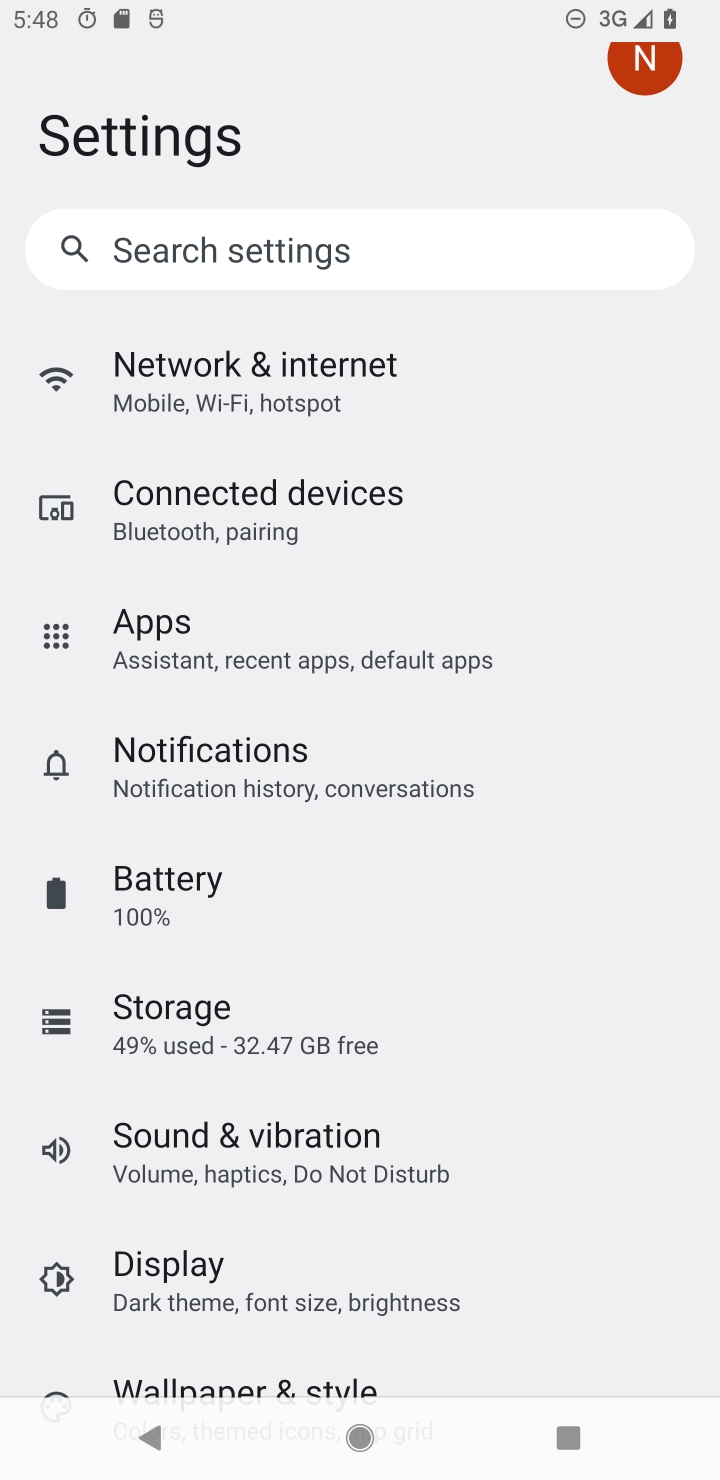
Step 29: click (279, 748)
Your task to perform on an android device: turn off picture-in-picture Image 30: 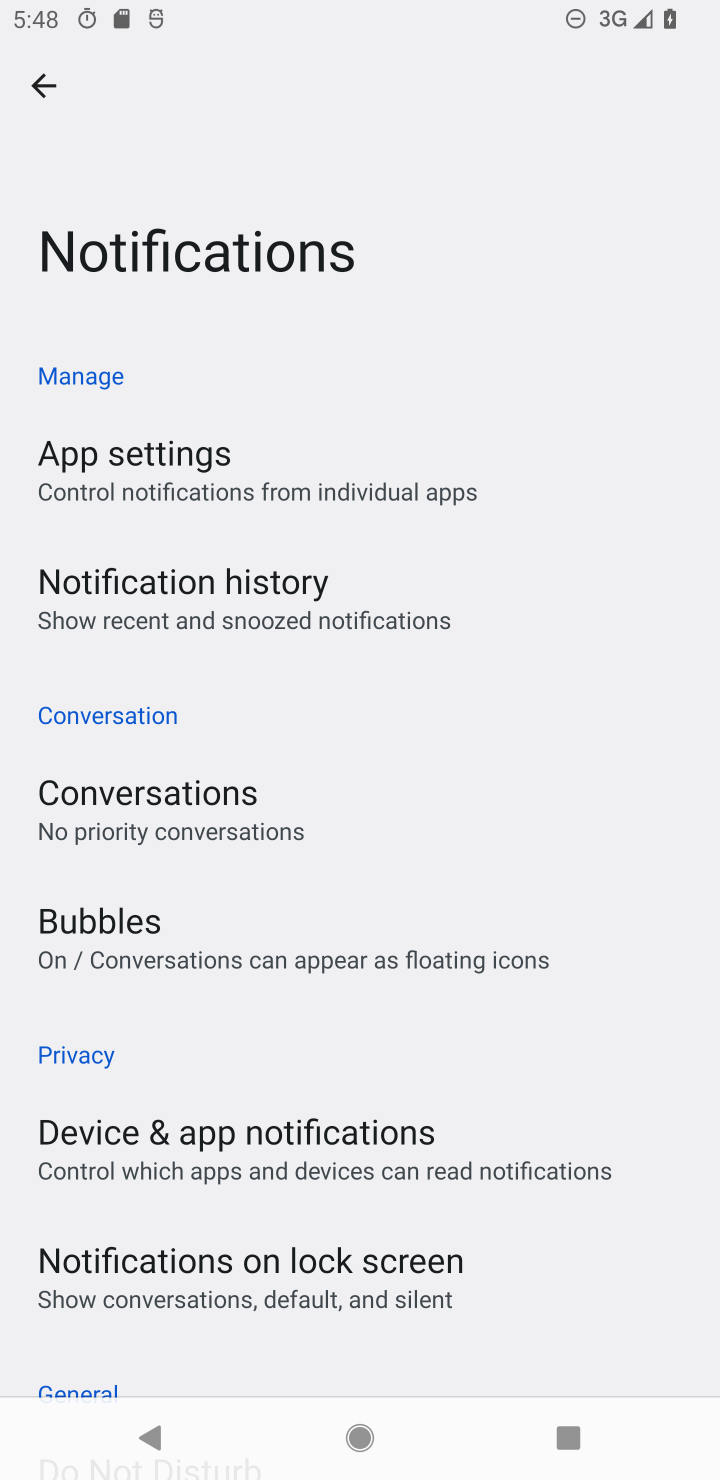
Step 30: task complete